Your task to perform on an android device: What is the news today? Image 0: 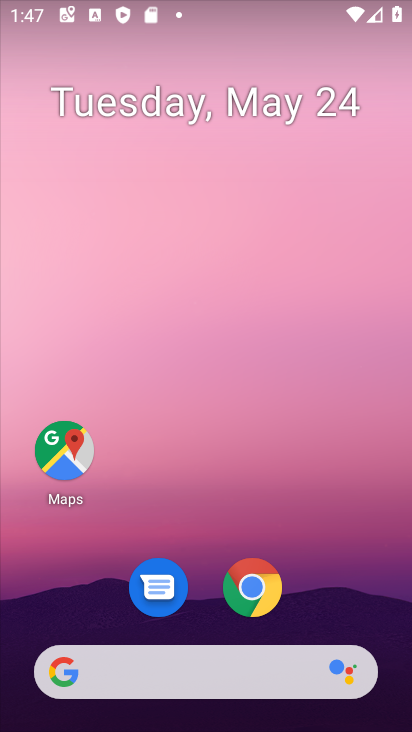
Step 0: click (256, 665)
Your task to perform on an android device: What is the news today? Image 1: 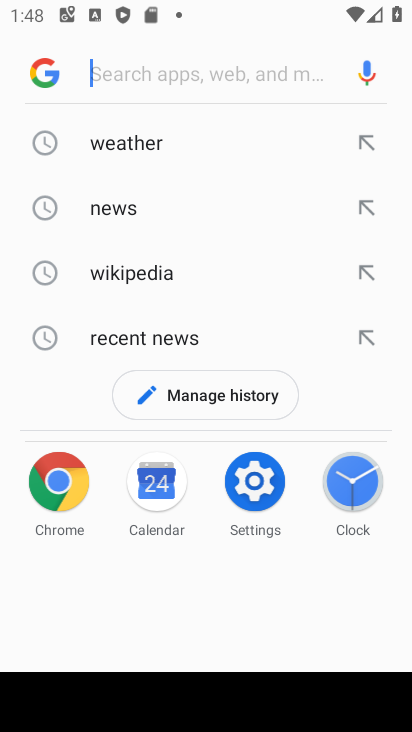
Step 1: click (127, 214)
Your task to perform on an android device: What is the news today? Image 2: 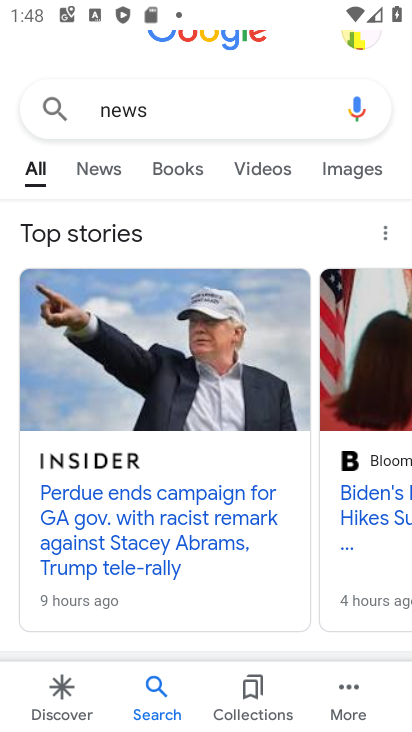
Step 2: type "today"
Your task to perform on an android device: What is the news today? Image 3: 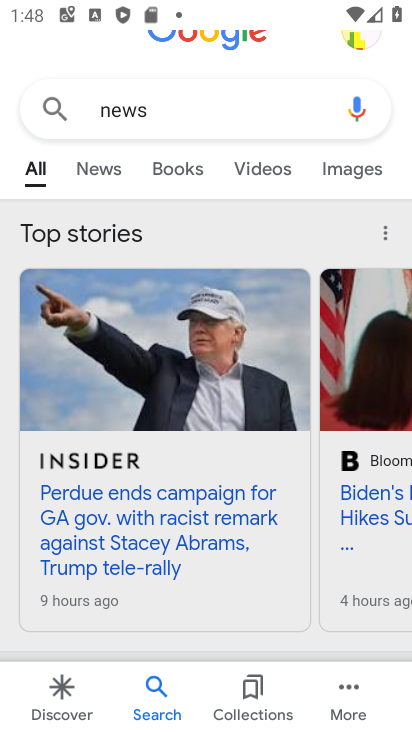
Step 3: click (195, 118)
Your task to perform on an android device: What is the news today? Image 4: 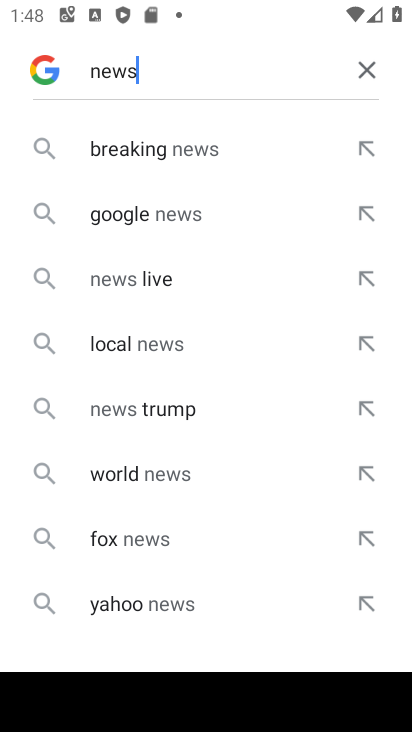
Step 4: type "today "
Your task to perform on an android device: What is the news today? Image 5: 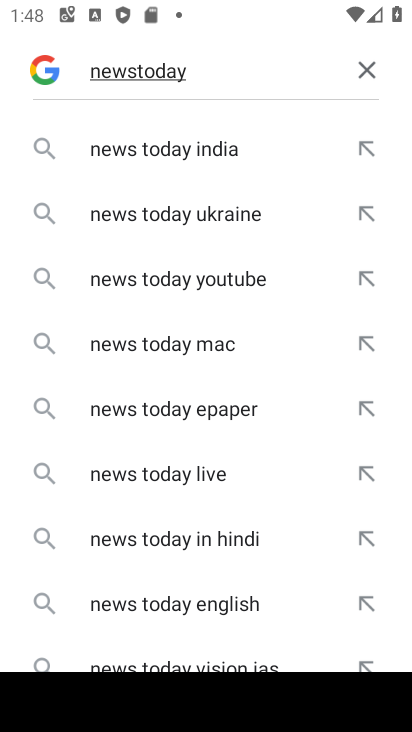
Step 5: click (220, 473)
Your task to perform on an android device: What is the news today? Image 6: 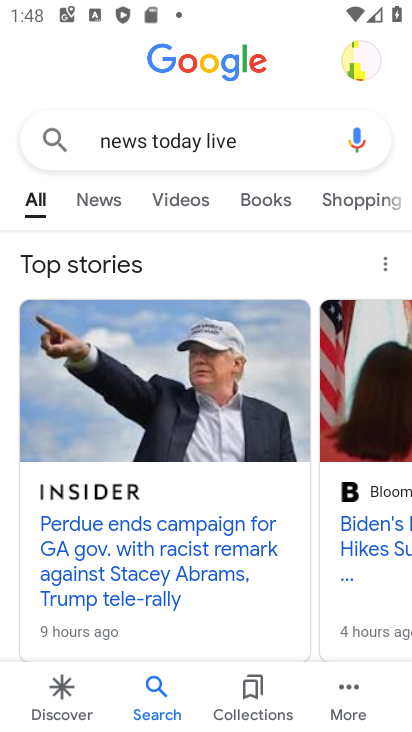
Step 6: task complete